Your task to perform on an android device: all mails in gmail Image 0: 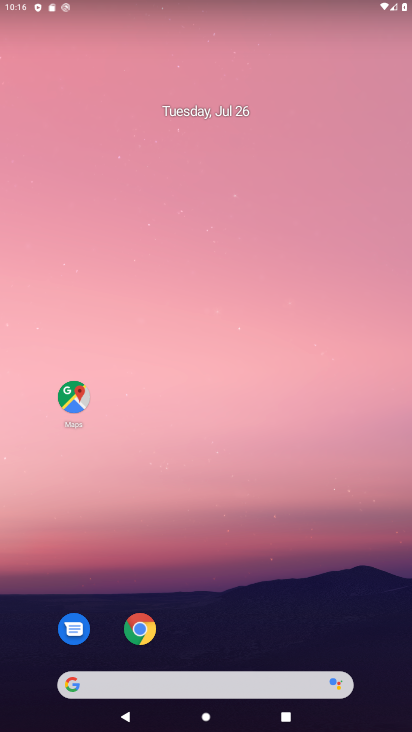
Step 0: drag from (302, 665) to (286, 231)
Your task to perform on an android device: all mails in gmail Image 1: 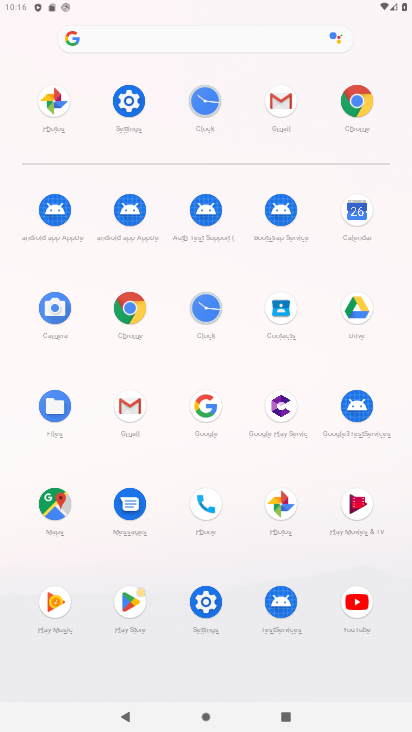
Step 1: click (139, 120)
Your task to perform on an android device: all mails in gmail Image 2: 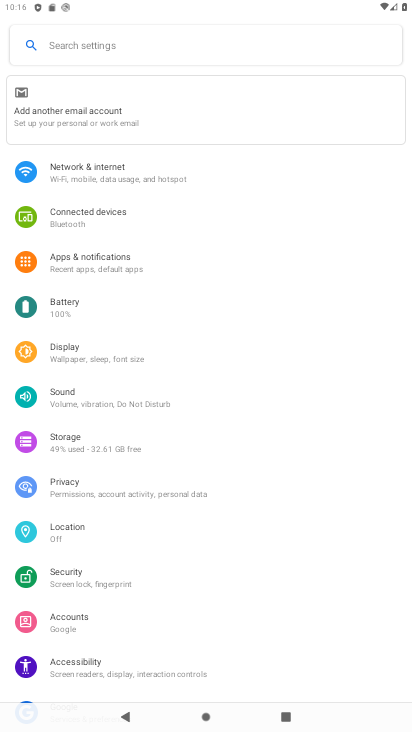
Step 2: task complete